Your task to perform on an android device: show emergency info Image 0: 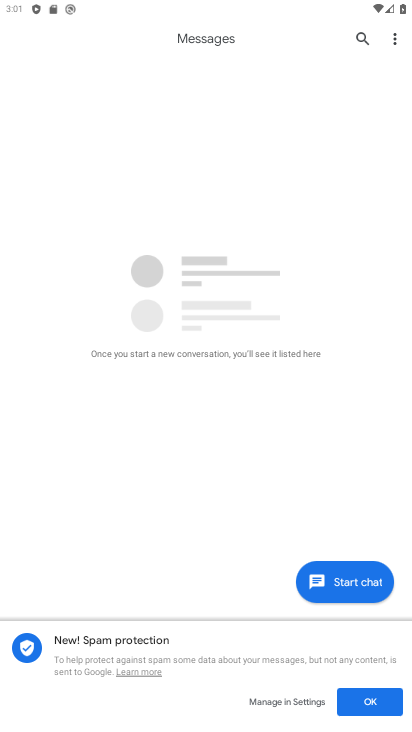
Step 0: press home button
Your task to perform on an android device: show emergency info Image 1: 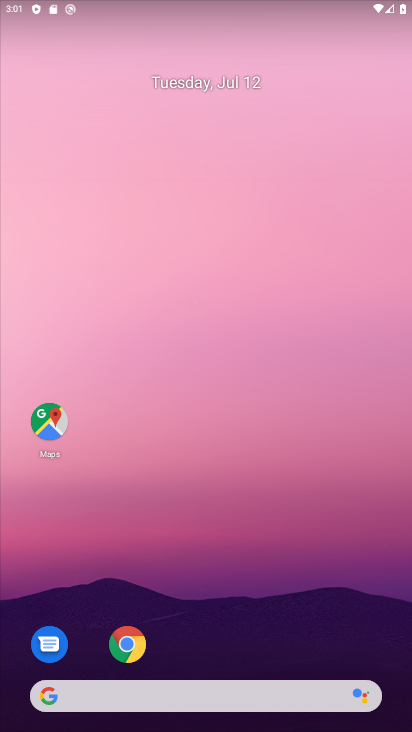
Step 1: drag from (331, 642) to (198, 125)
Your task to perform on an android device: show emergency info Image 2: 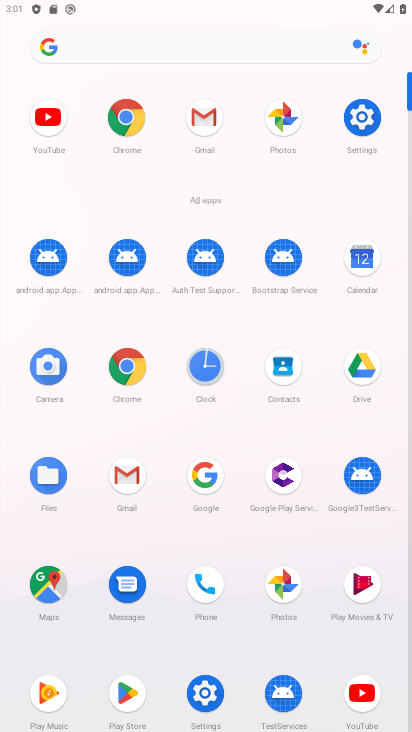
Step 2: click (361, 119)
Your task to perform on an android device: show emergency info Image 3: 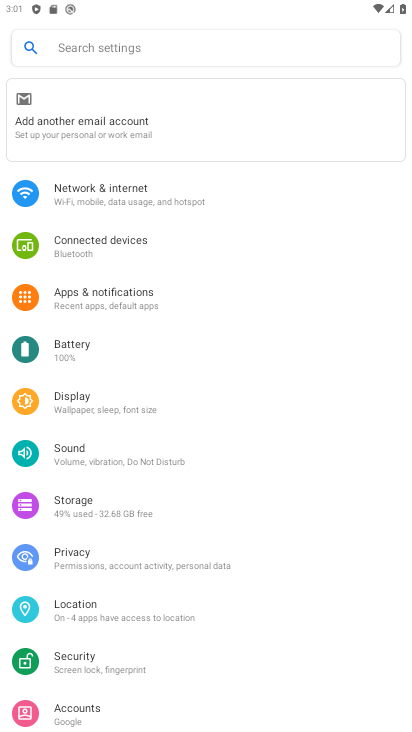
Step 3: drag from (222, 690) to (178, 121)
Your task to perform on an android device: show emergency info Image 4: 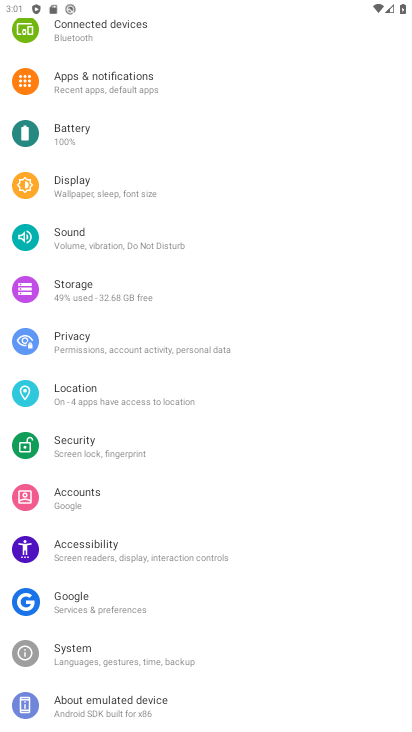
Step 4: click (128, 710)
Your task to perform on an android device: show emergency info Image 5: 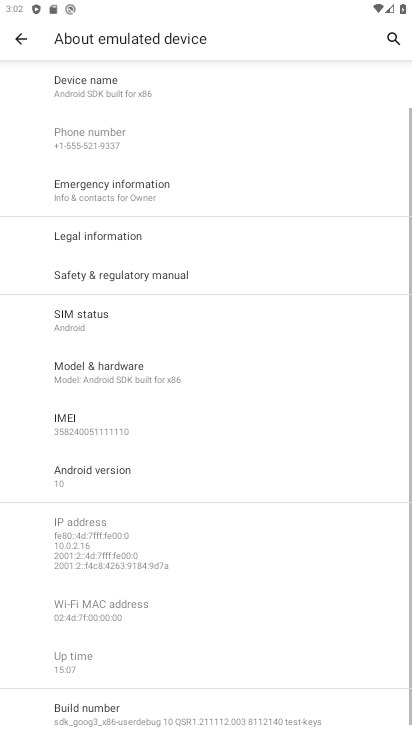
Step 5: click (133, 188)
Your task to perform on an android device: show emergency info Image 6: 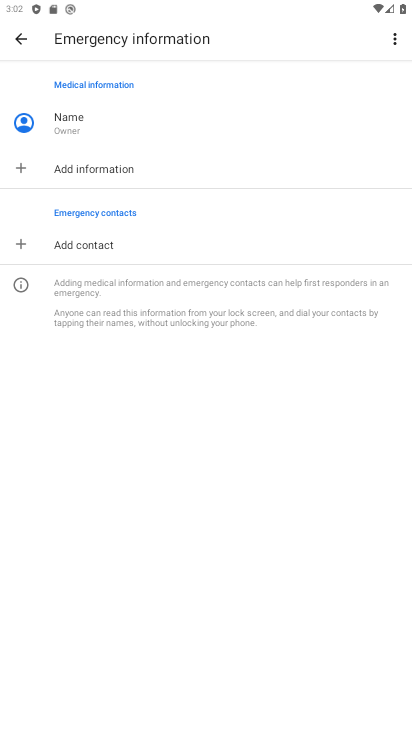
Step 6: task complete